Your task to perform on an android device: Go to sound settings Image 0: 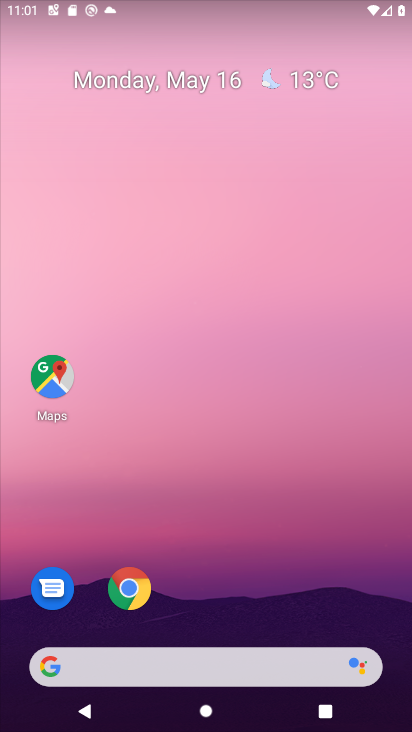
Step 0: press home button
Your task to perform on an android device: Go to sound settings Image 1: 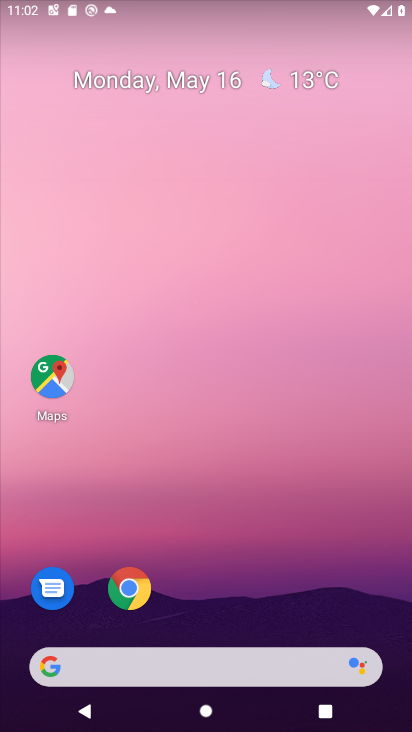
Step 1: drag from (208, 627) to (227, 52)
Your task to perform on an android device: Go to sound settings Image 2: 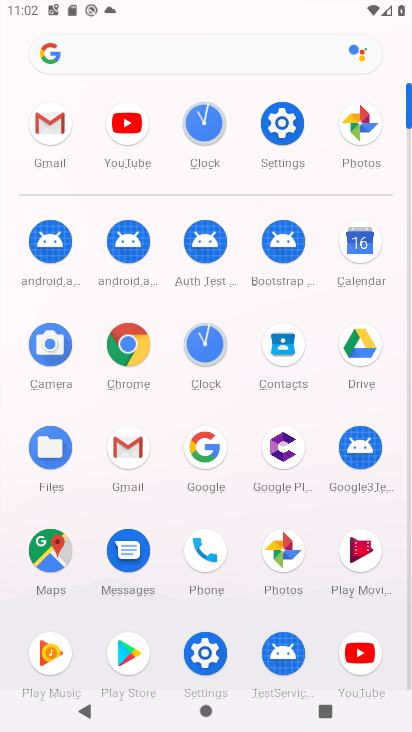
Step 2: click (280, 118)
Your task to perform on an android device: Go to sound settings Image 3: 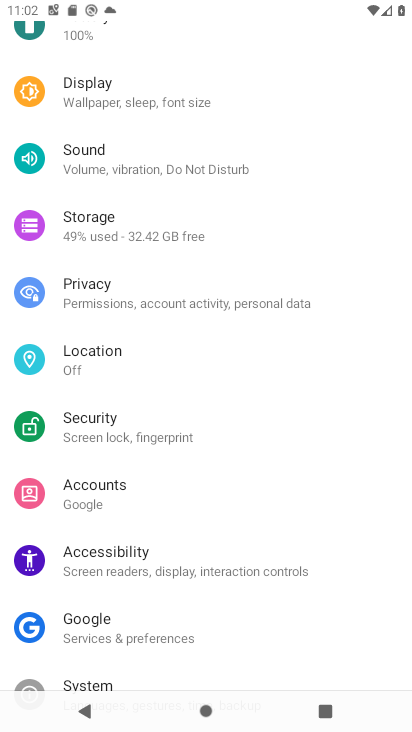
Step 3: click (118, 141)
Your task to perform on an android device: Go to sound settings Image 4: 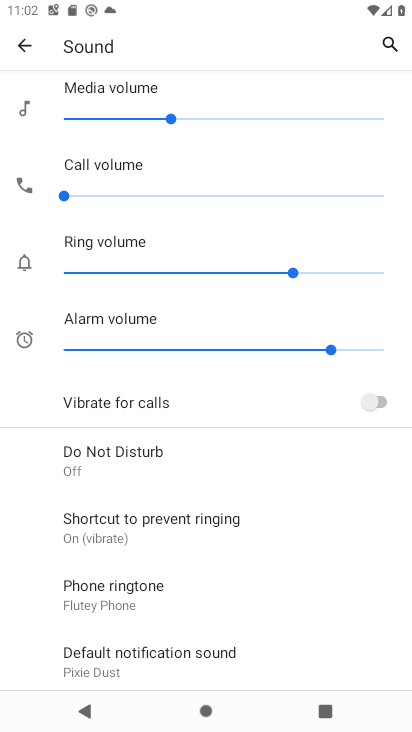
Step 4: drag from (209, 595) to (230, 150)
Your task to perform on an android device: Go to sound settings Image 5: 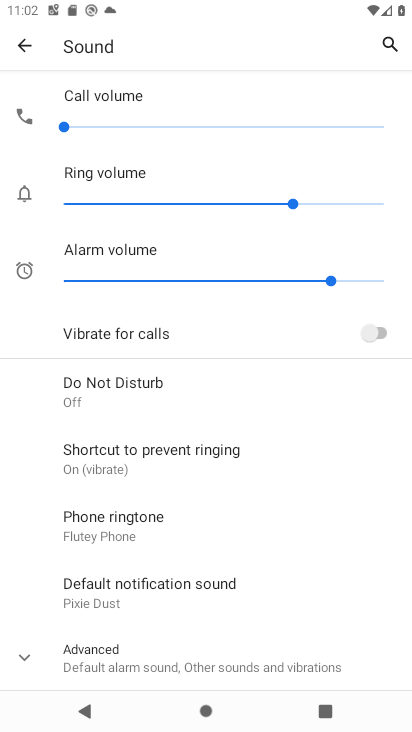
Step 5: click (30, 654)
Your task to perform on an android device: Go to sound settings Image 6: 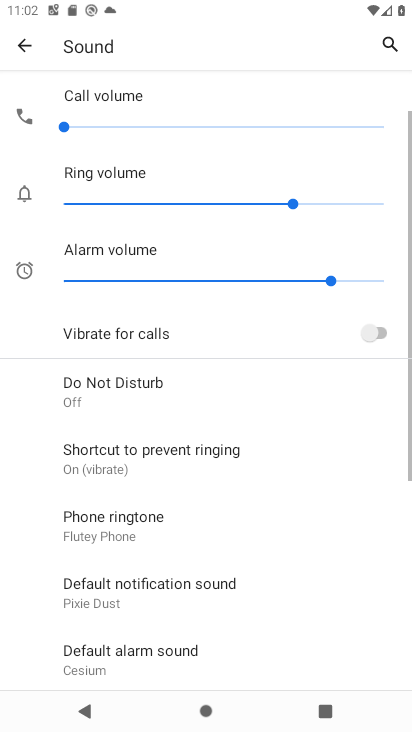
Step 6: task complete